Your task to perform on an android device: turn off sleep mode Image 0: 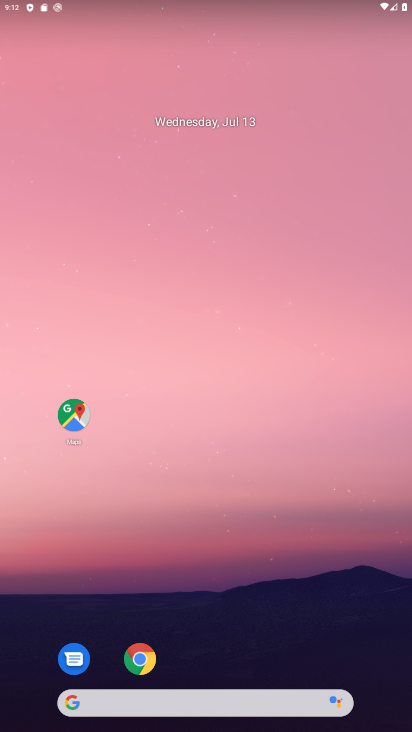
Step 0: drag from (376, 640) to (303, 226)
Your task to perform on an android device: turn off sleep mode Image 1: 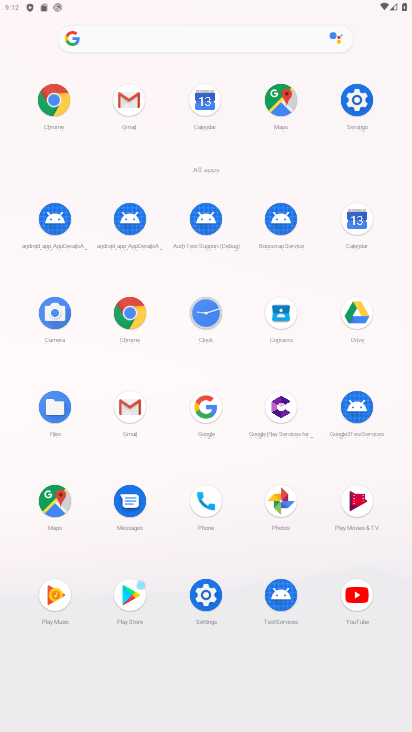
Step 1: click (206, 597)
Your task to perform on an android device: turn off sleep mode Image 2: 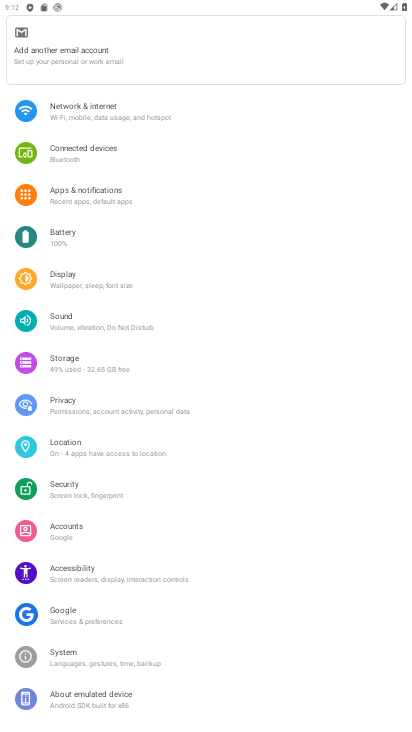
Step 2: click (62, 287)
Your task to perform on an android device: turn off sleep mode Image 3: 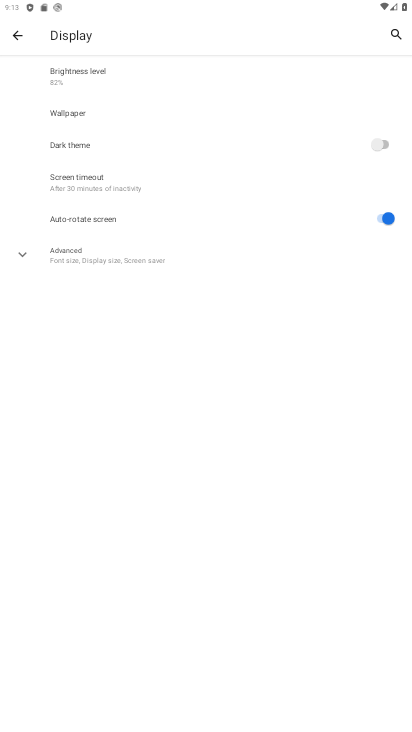
Step 3: click (20, 256)
Your task to perform on an android device: turn off sleep mode Image 4: 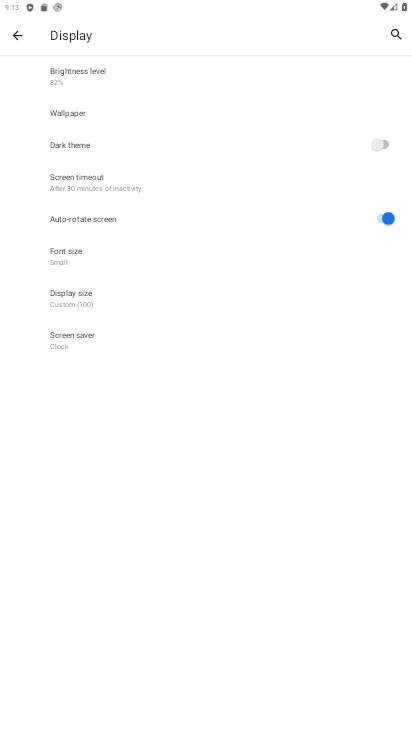
Step 4: task complete